Your task to perform on an android device: toggle location history Image 0: 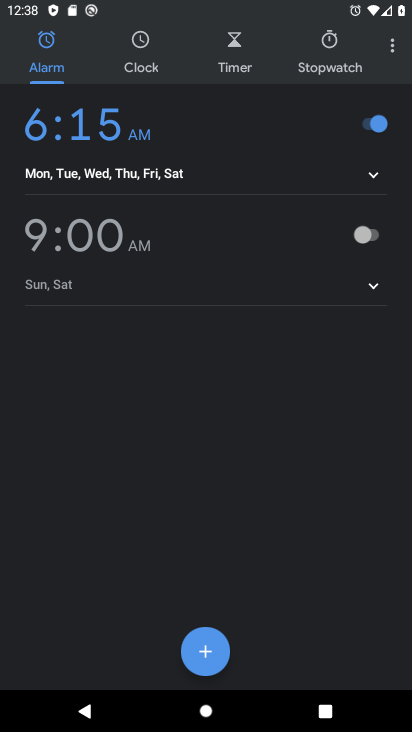
Step 0: press home button
Your task to perform on an android device: toggle location history Image 1: 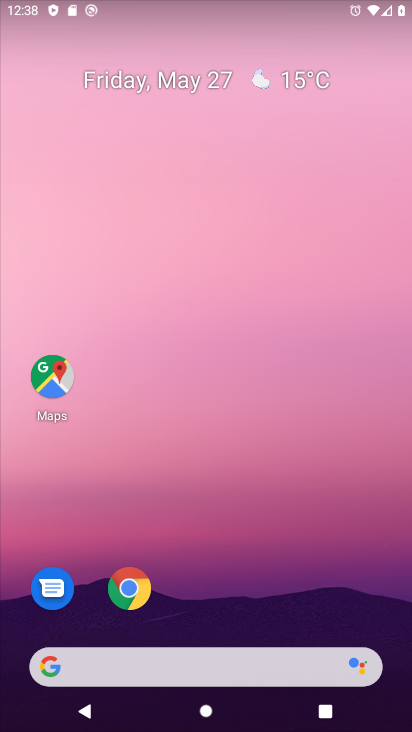
Step 1: click (54, 375)
Your task to perform on an android device: toggle location history Image 2: 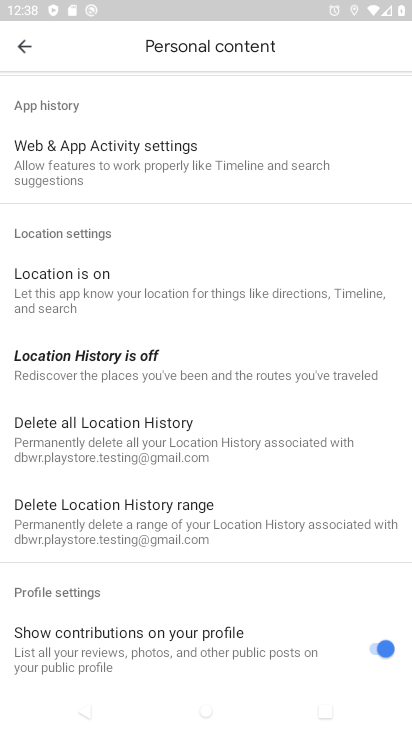
Step 2: click (100, 358)
Your task to perform on an android device: toggle location history Image 3: 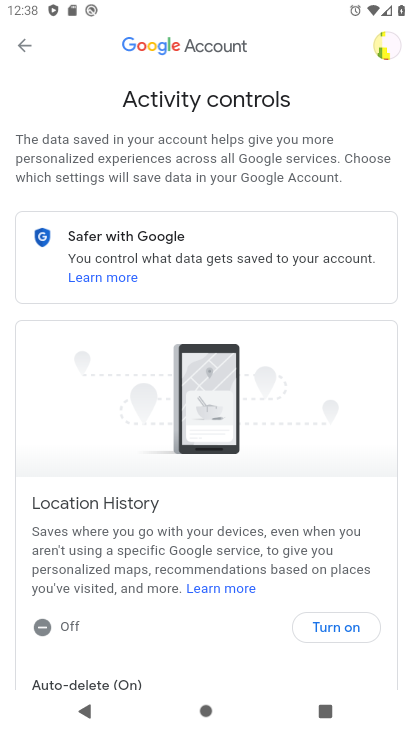
Step 3: click (329, 625)
Your task to perform on an android device: toggle location history Image 4: 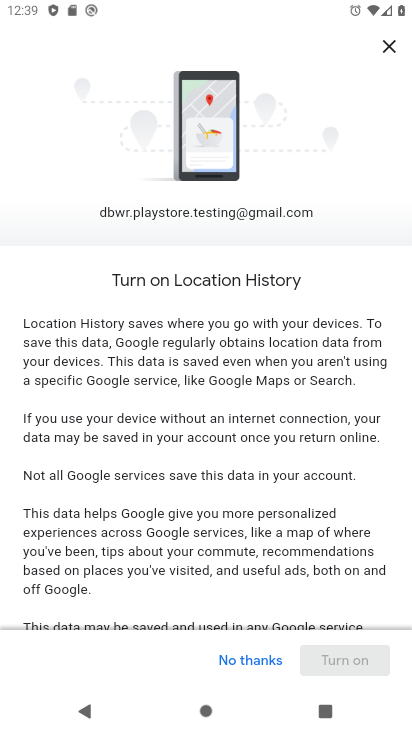
Step 4: drag from (323, 599) to (312, 144)
Your task to perform on an android device: toggle location history Image 5: 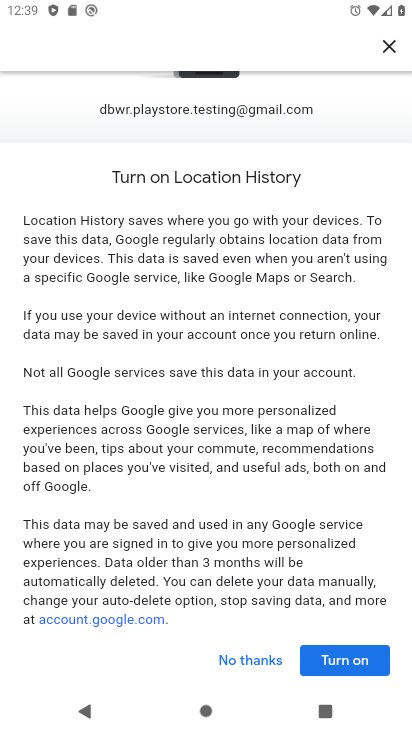
Step 5: click (346, 652)
Your task to perform on an android device: toggle location history Image 6: 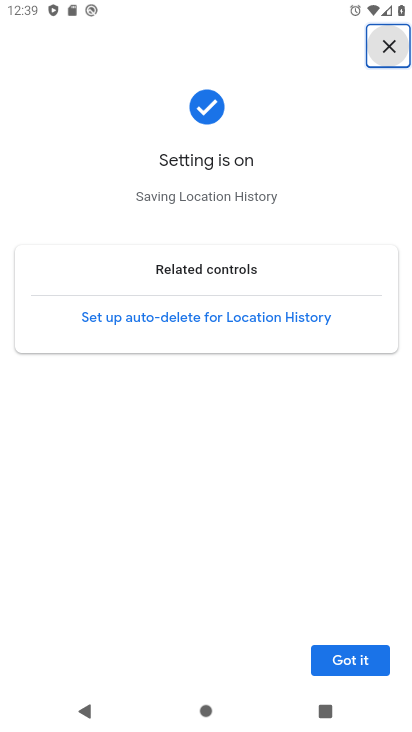
Step 6: click (347, 657)
Your task to perform on an android device: toggle location history Image 7: 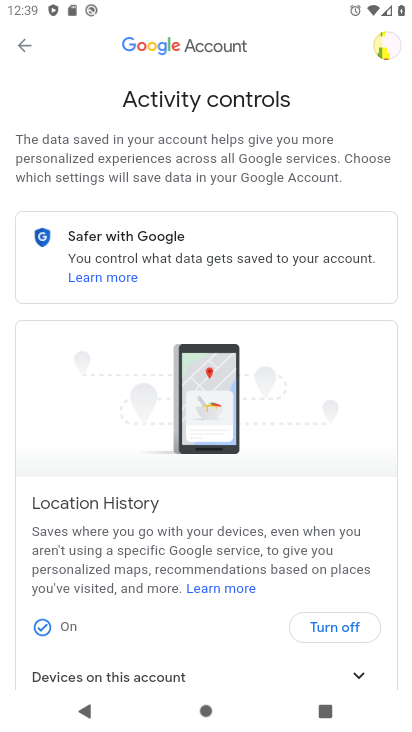
Step 7: task complete